Your task to perform on an android device: Go to Google maps Image 0: 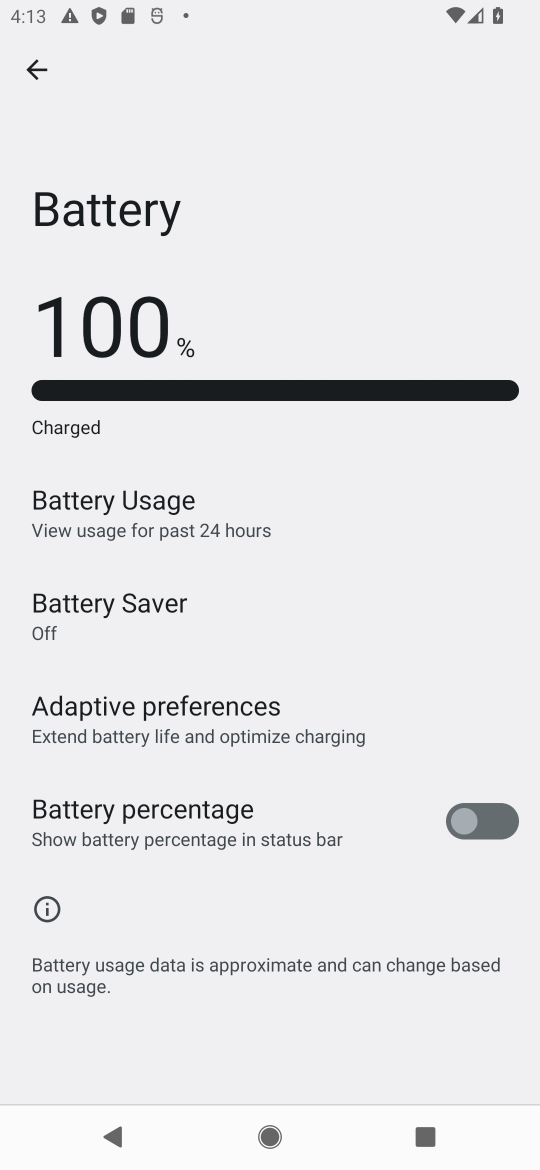
Step 0: press home button
Your task to perform on an android device: Go to Google maps Image 1: 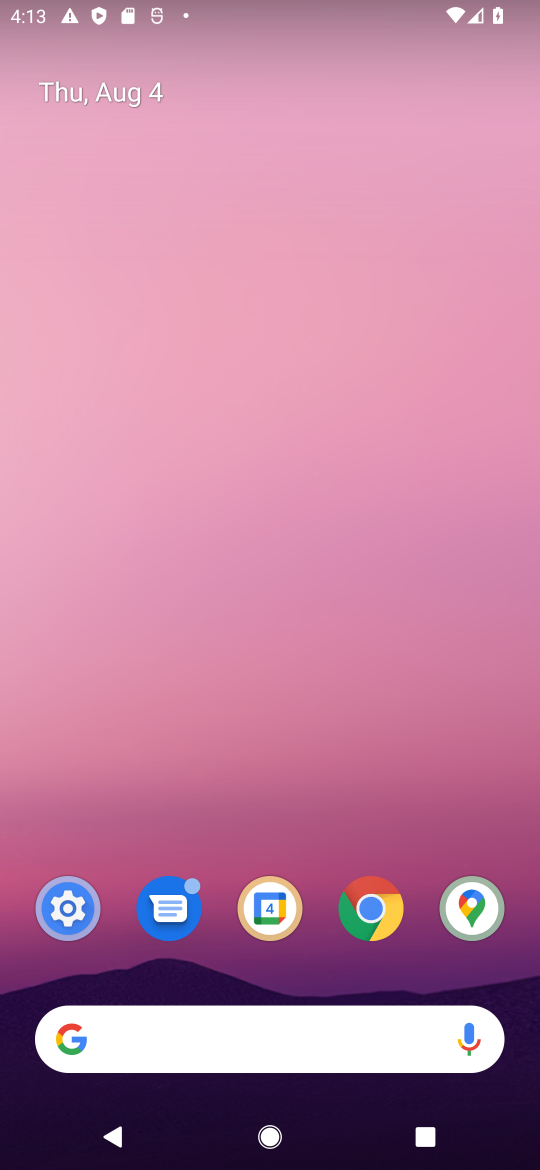
Step 1: drag from (272, 957) to (277, 6)
Your task to perform on an android device: Go to Google maps Image 2: 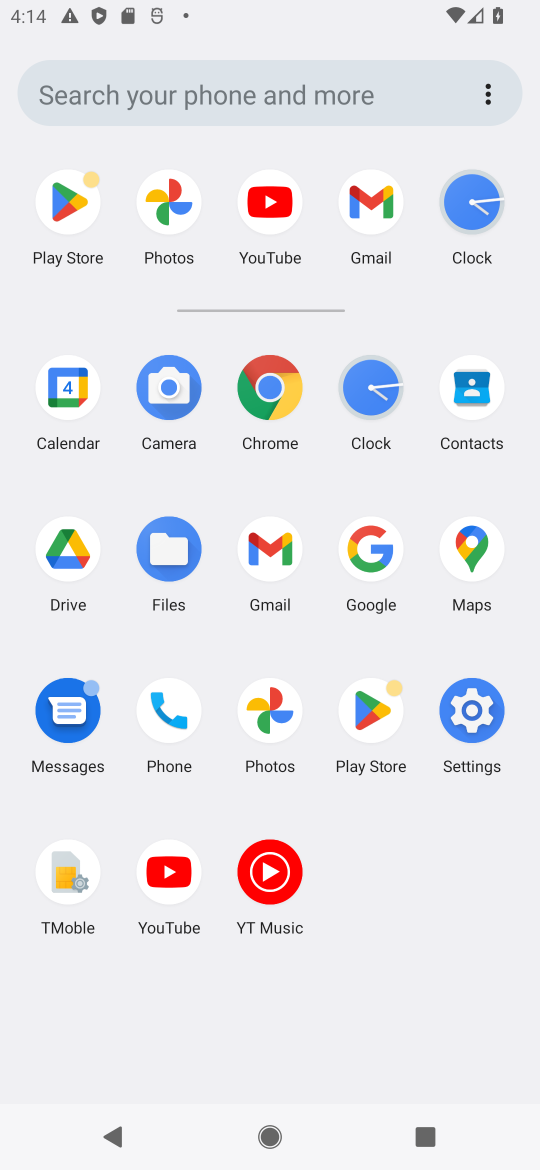
Step 2: click (469, 568)
Your task to perform on an android device: Go to Google maps Image 3: 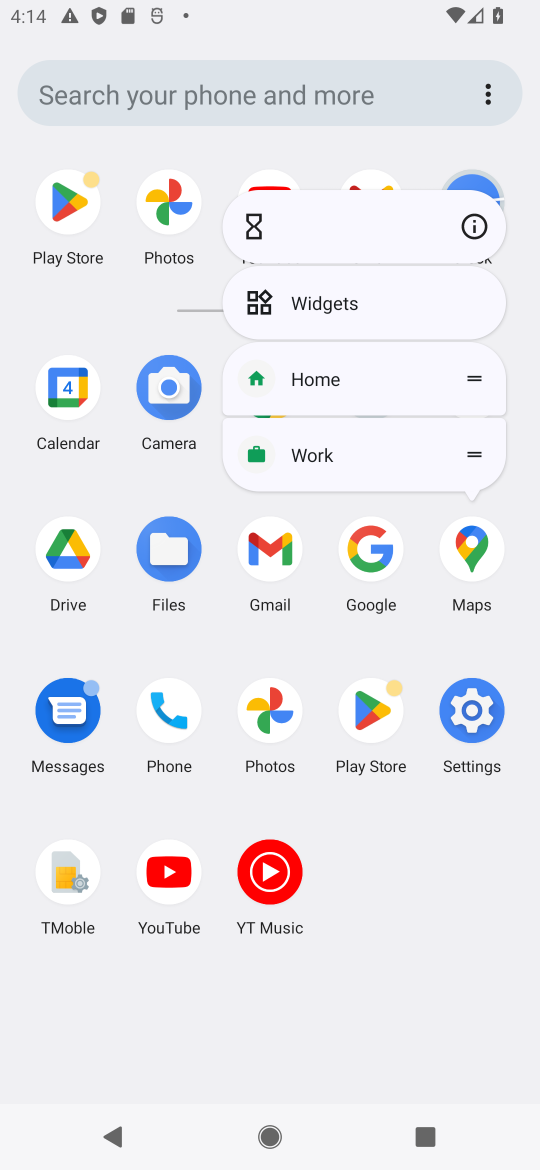
Step 3: click (469, 564)
Your task to perform on an android device: Go to Google maps Image 4: 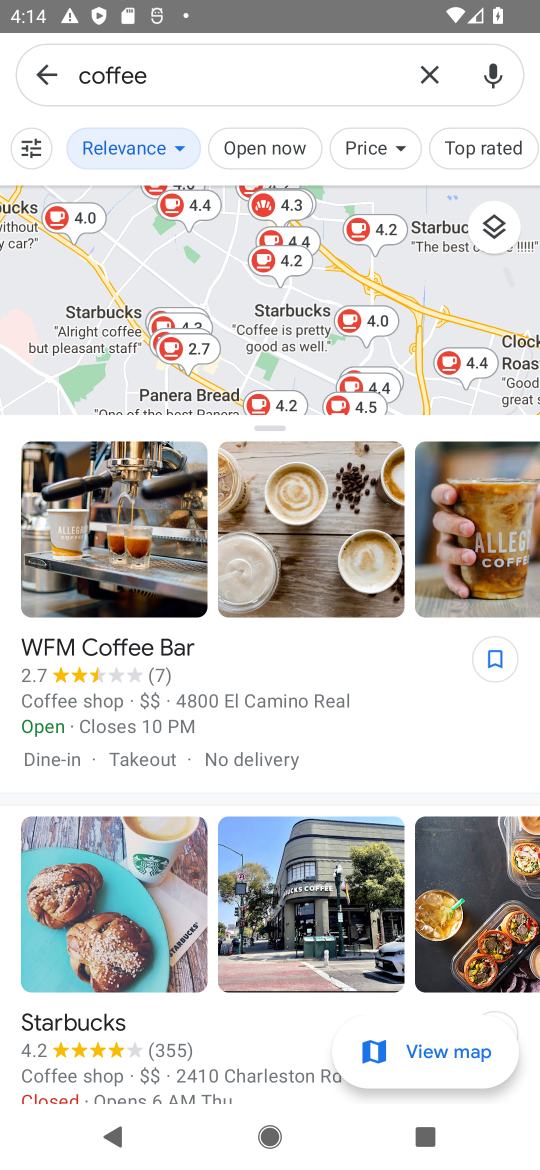
Step 4: task complete